Your task to perform on an android device: Go to ESPN.com Image 0: 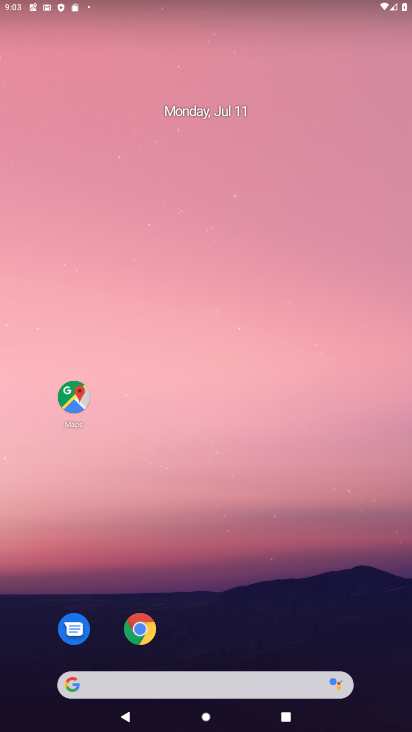
Step 0: click (134, 627)
Your task to perform on an android device: Go to ESPN.com Image 1: 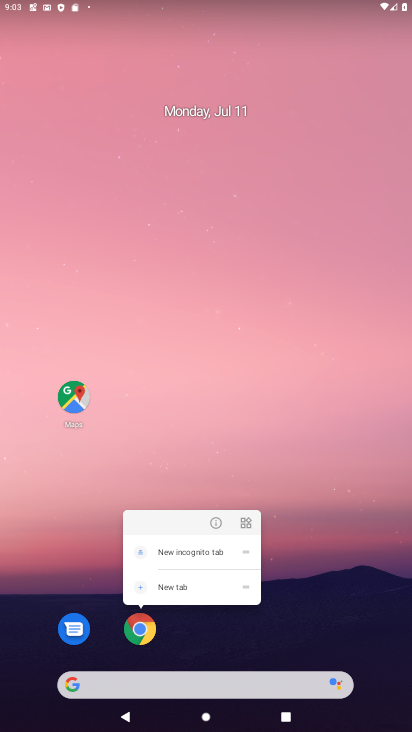
Step 1: click (144, 628)
Your task to perform on an android device: Go to ESPN.com Image 2: 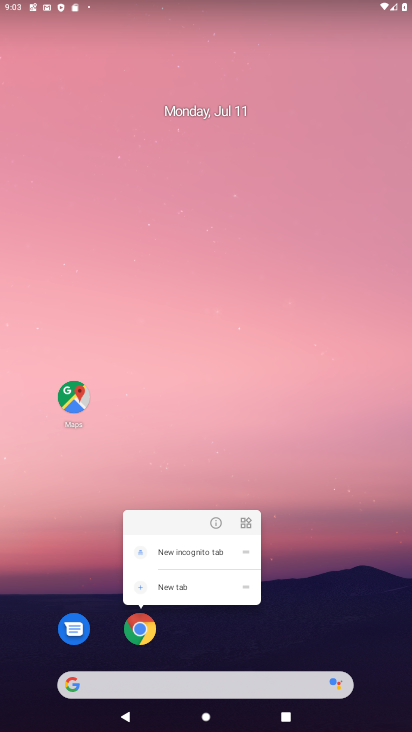
Step 2: click (150, 633)
Your task to perform on an android device: Go to ESPN.com Image 3: 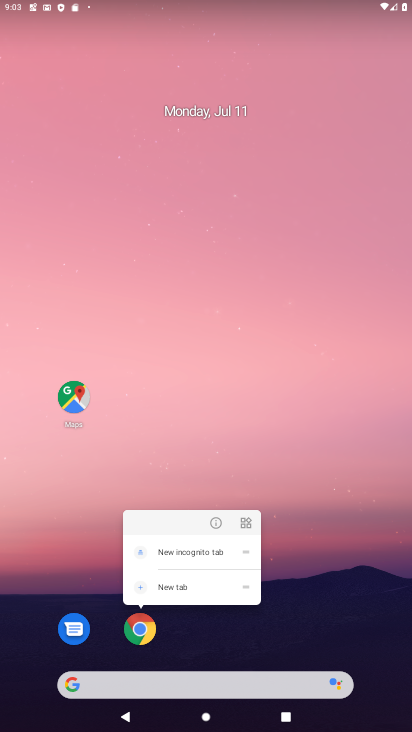
Step 3: click (148, 635)
Your task to perform on an android device: Go to ESPN.com Image 4: 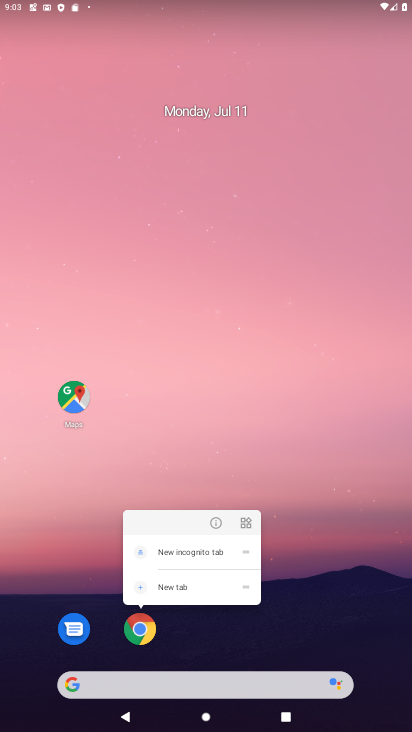
Step 4: click (148, 635)
Your task to perform on an android device: Go to ESPN.com Image 5: 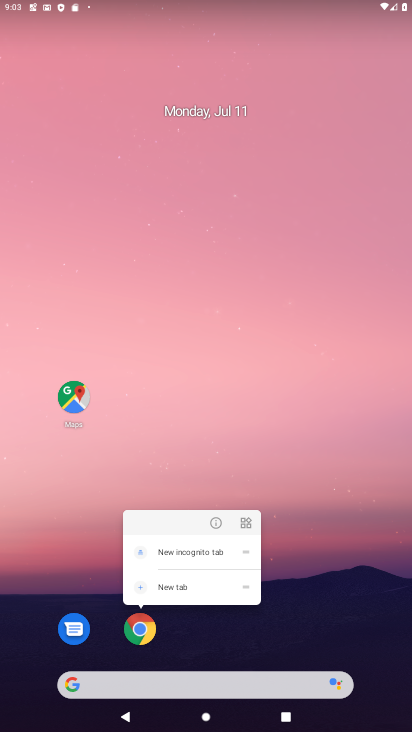
Step 5: click (134, 629)
Your task to perform on an android device: Go to ESPN.com Image 6: 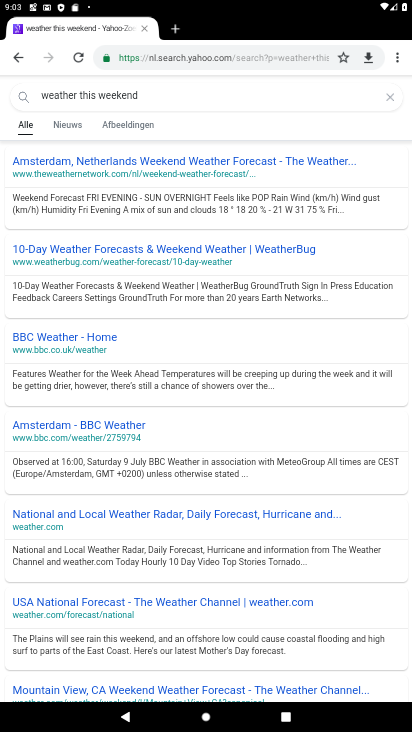
Step 6: click (148, 32)
Your task to perform on an android device: Go to ESPN.com Image 7: 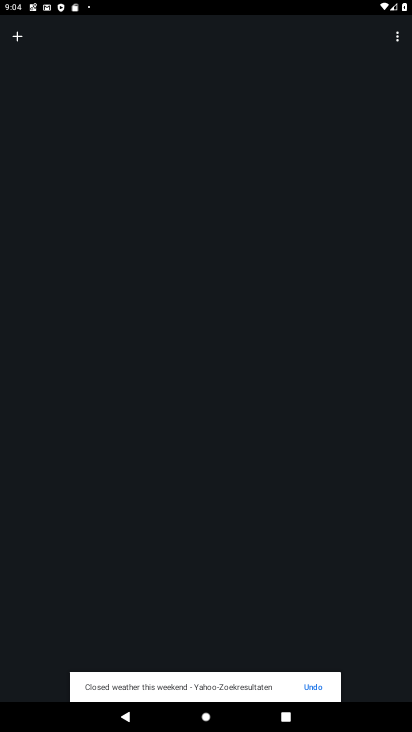
Step 7: click (21, 37)
Your task to perform on an android device: Go to ESPN.com Image 8: 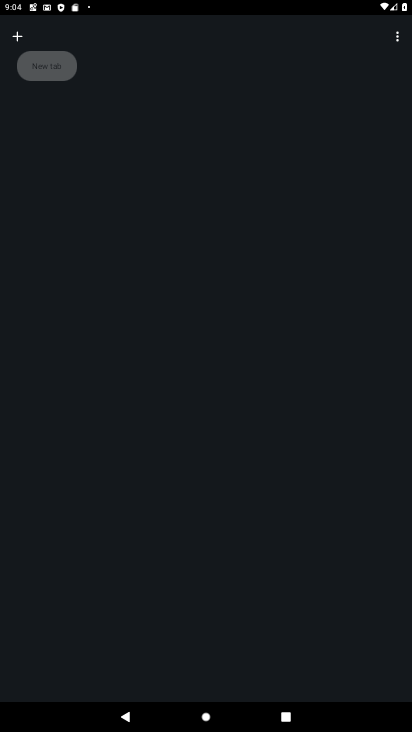
Step 8: click (22, 39)
Your task to perform on an android device: Go to ESPN.com Image 9: 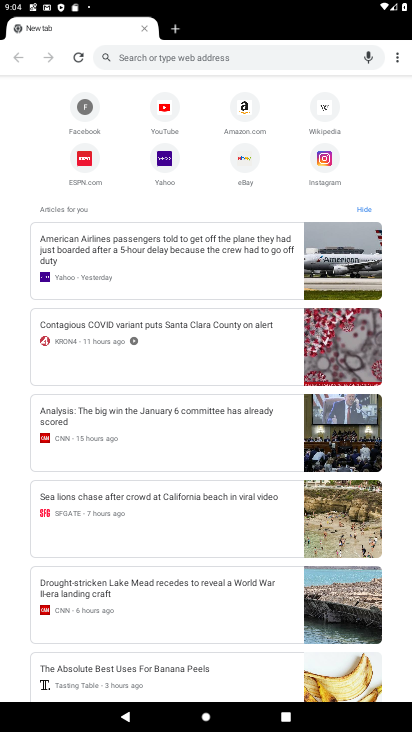
Step 9: click (74, 165)
Your task to perform on an android device: Go to ESPN.com Image 10: 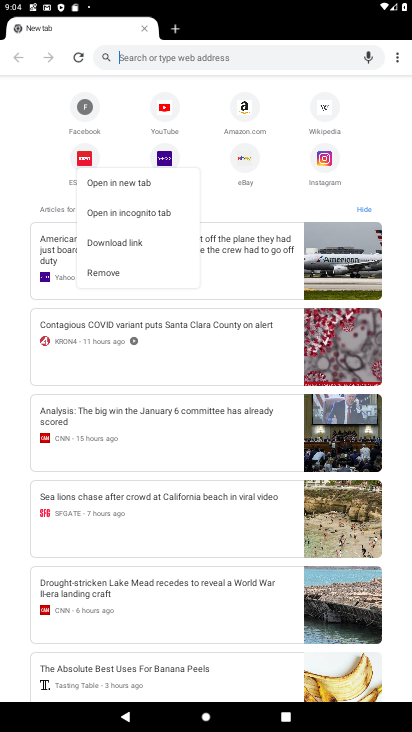
Step 10: click (90, 158)
Your task to perform on an android device: Go to ESPN.com Image 11: 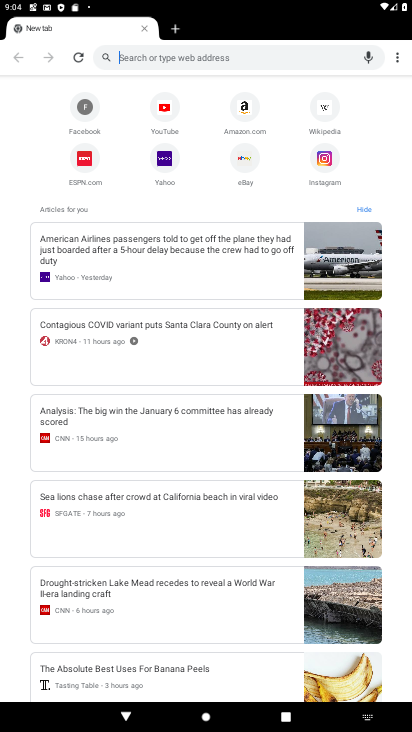
Step 11: click (89, 157)
Your task to perform on an android device: Go to ESPN.com Image 12: 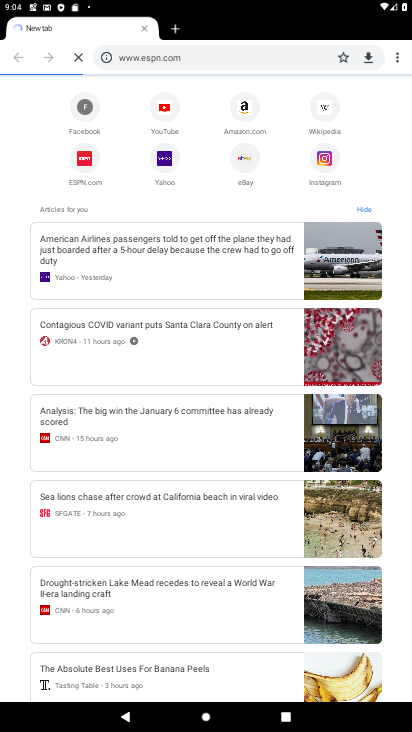
Step 12: click (75, 157)
Your task to perform on an android device: Go to ESPN.com Image 13: 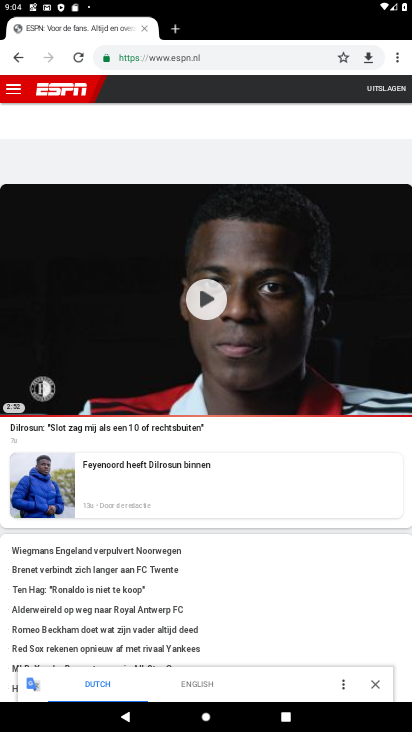
Step 13: task complete